Your task to perform on an android device: Go to sound settings Image 0: 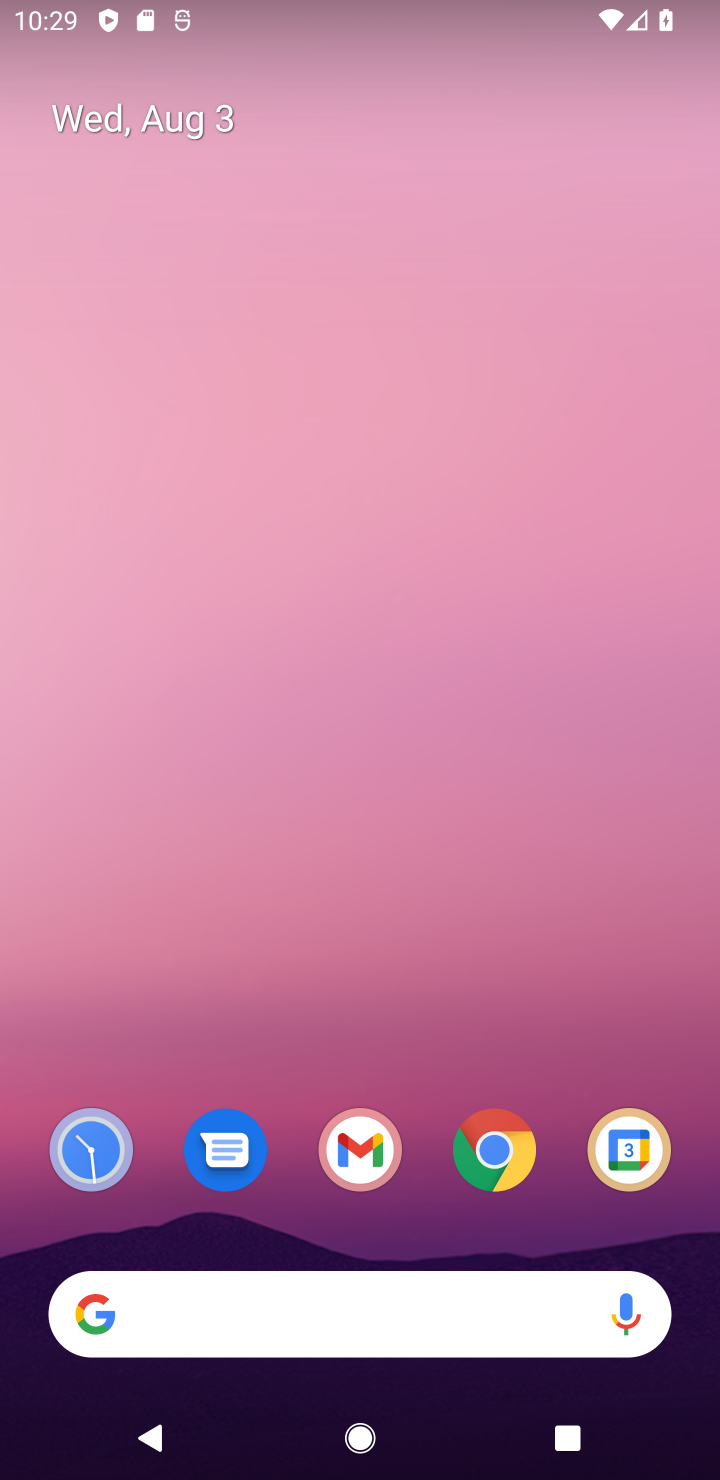
Step 0: drag from (553, 771) to (588, 175)
Your task to perform on an android device: Go to sound settings Image 1: 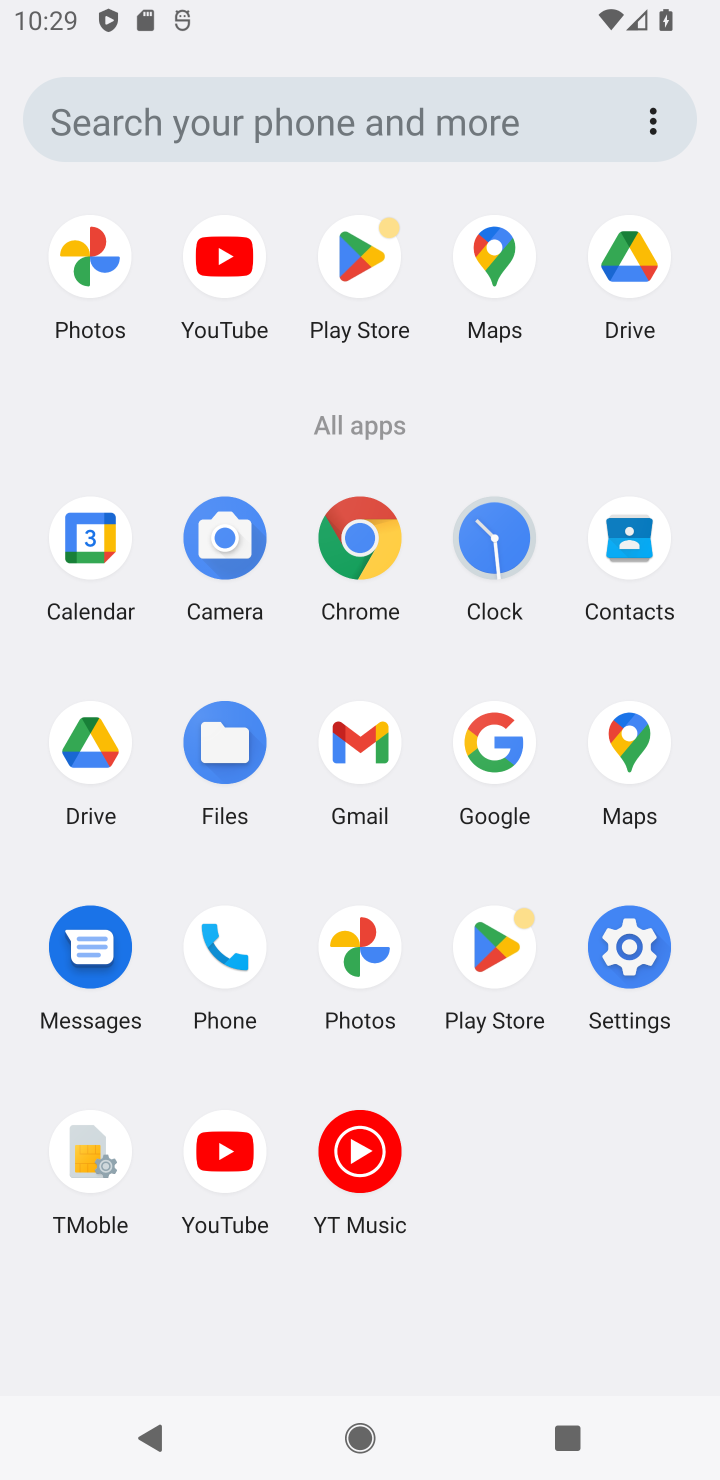
Step 1: click (634, 947)
Your task to perform on an android device: Go to sound settings Image 2: 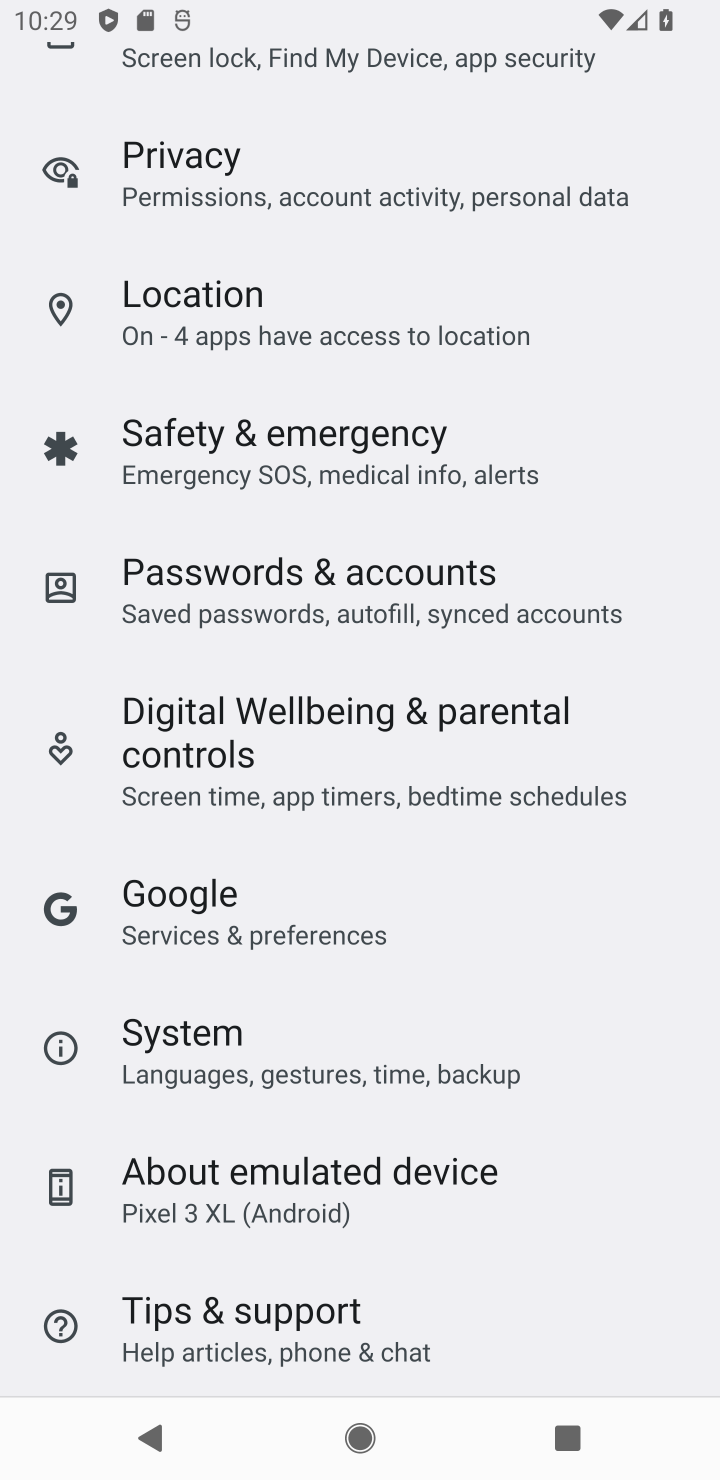
Step 2: drag from (649, 495) to (631, 819)
Your task to perform on an android device: Go to sound settings Image 3: 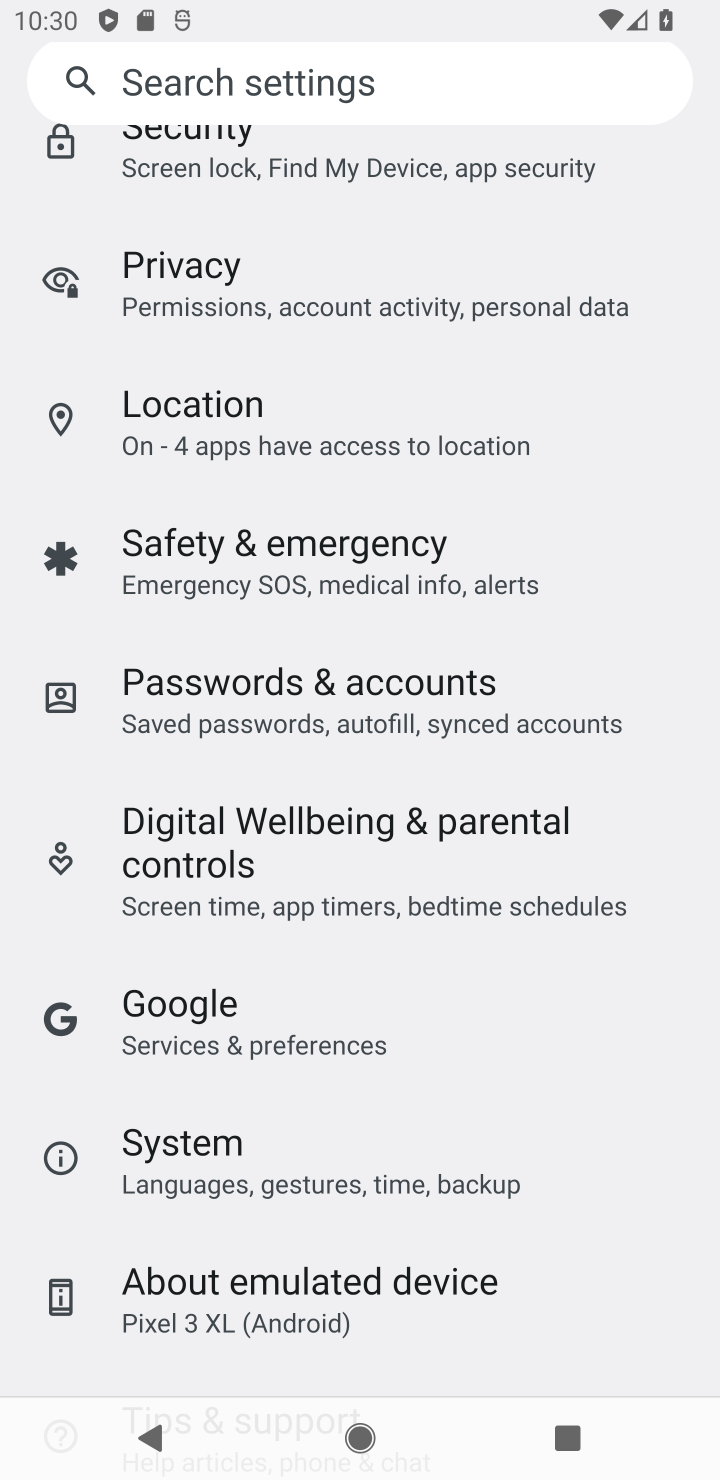
Step 3: drag from (668, 410) to (631, 786)
Your task to perform on an android device: Go to sound settings Image 4: 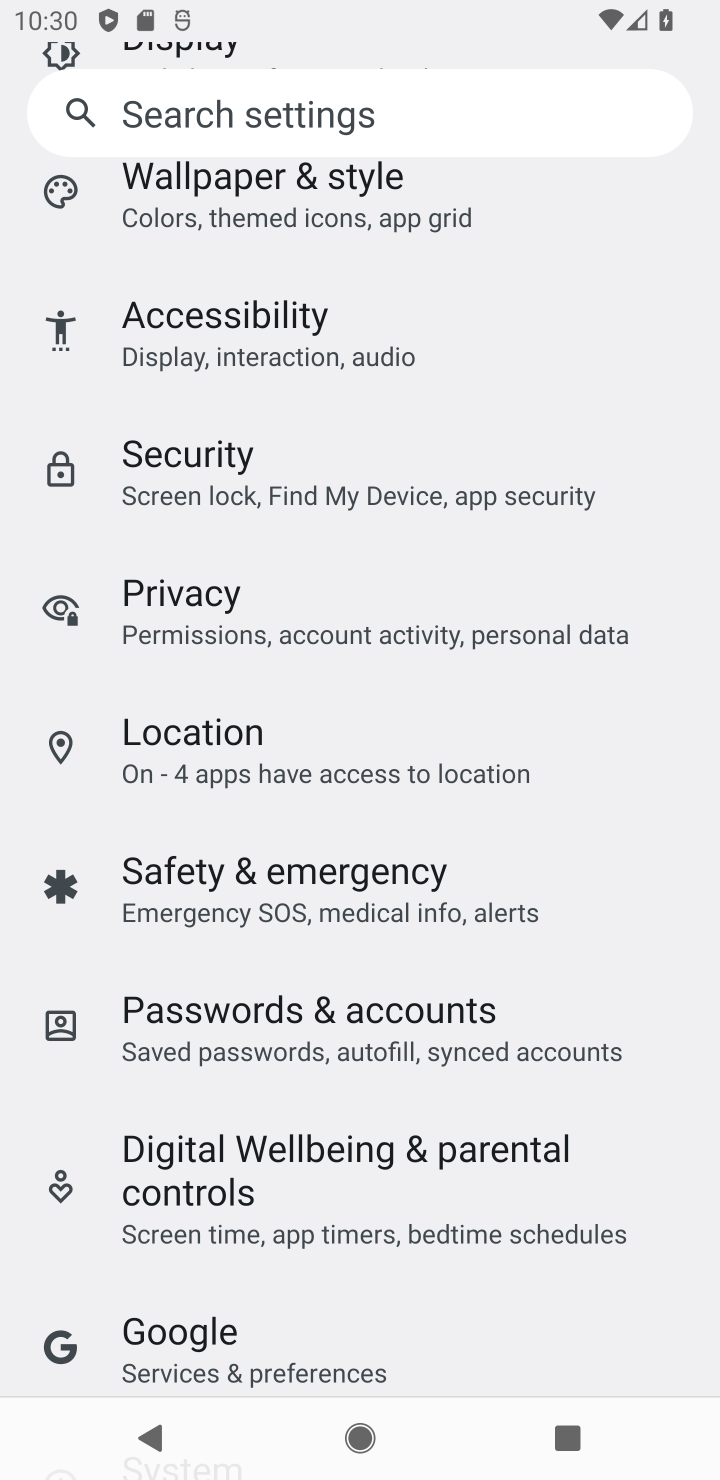
Step 4: drag from (667, 478) to (656, 888)
Your task to perform on an android device: Go to sound settings Image 5: 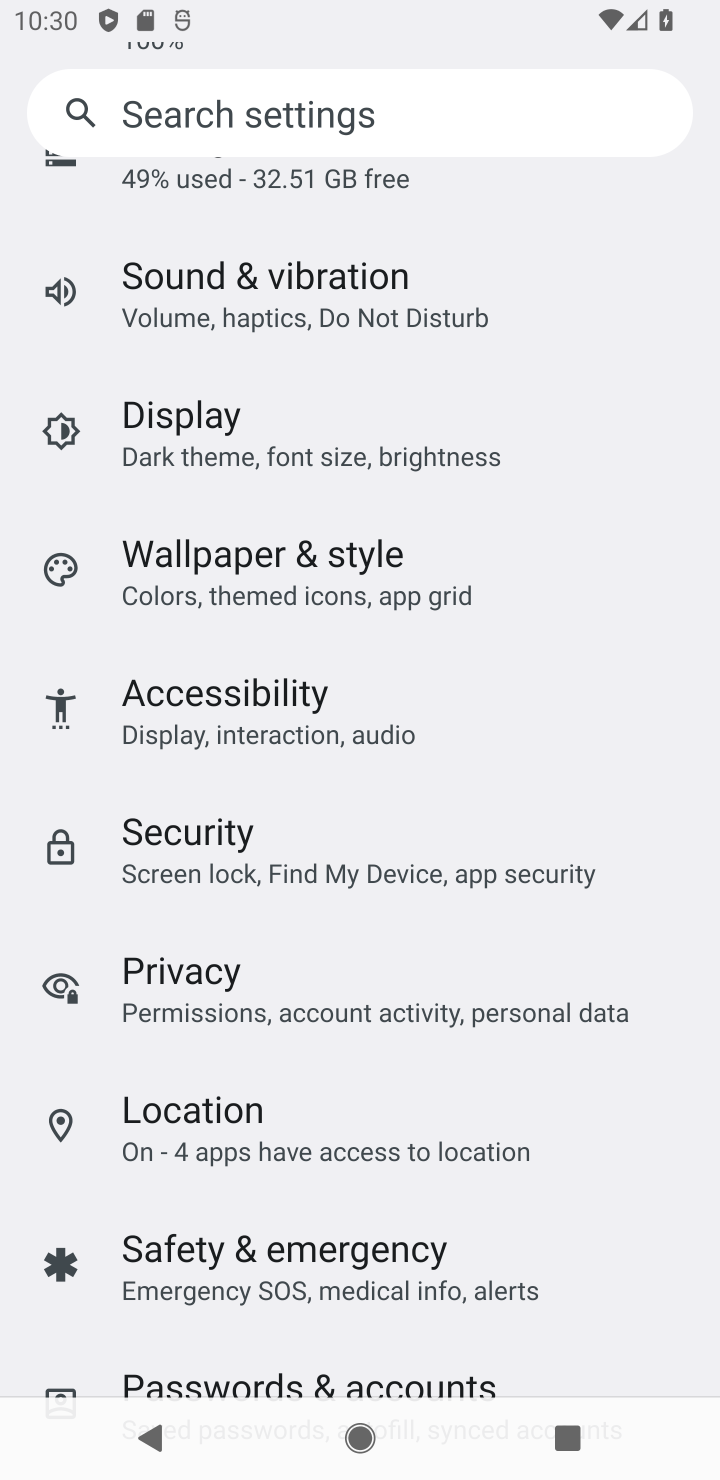
Step 5: drag from (602, 398) to (641, 758)
Your task to perform on an android device: Go to sound settings Image 6: 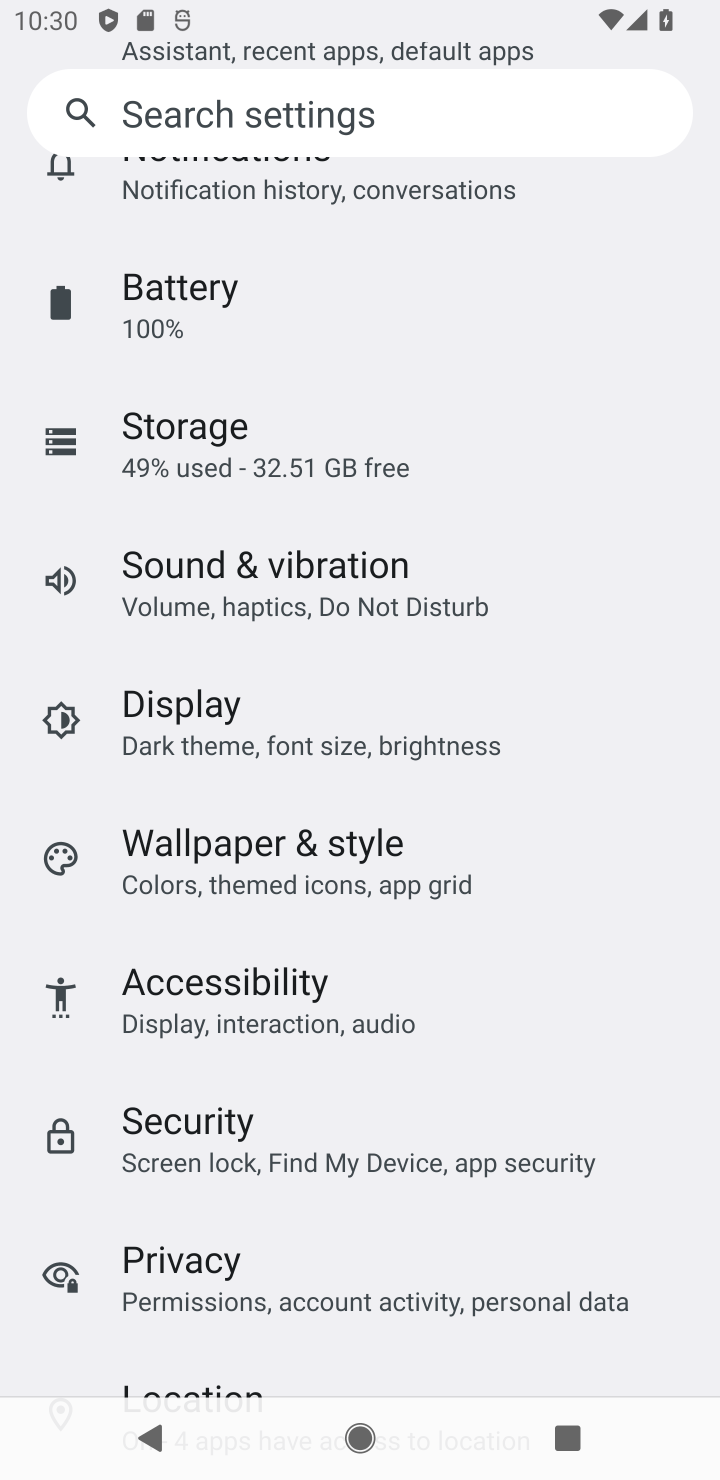
Step 6: drag from (575, 397) to (584, 737)
Your task to perform on an android device: Go to sound settings Image 7: 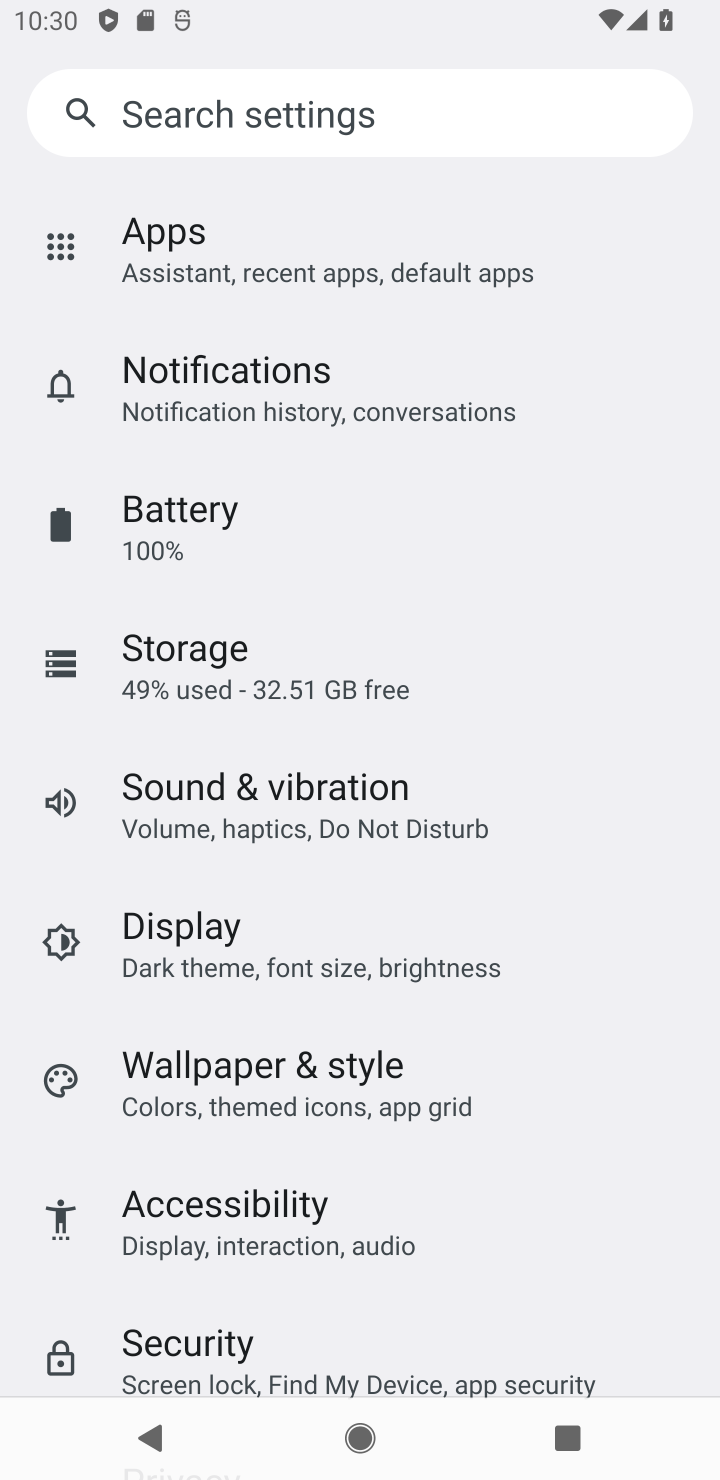
Step 7: click (434, 746)
Your task to perform on an android device: Go to sound settings Image 8: 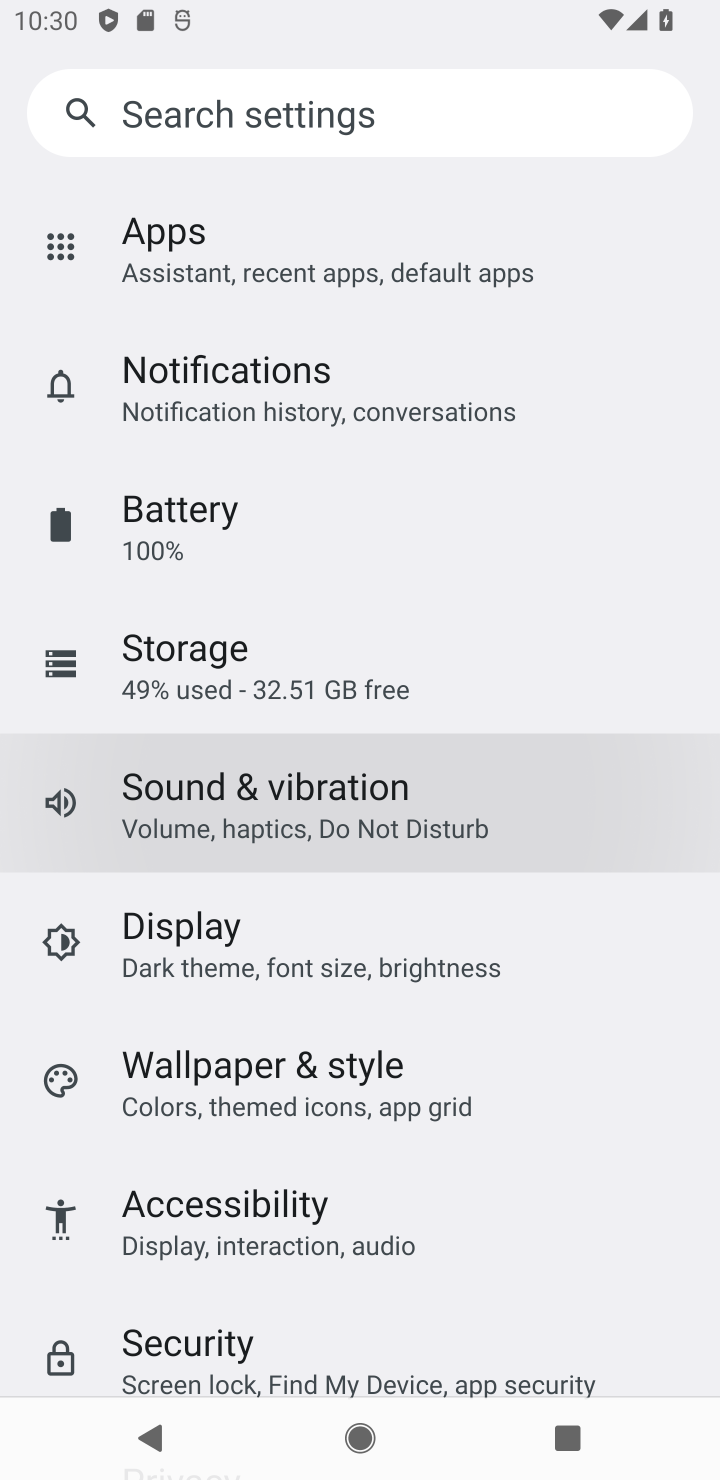
Step 8: click (436, 800)
Your task to perform on an android device: Go to sound settings Image 9: 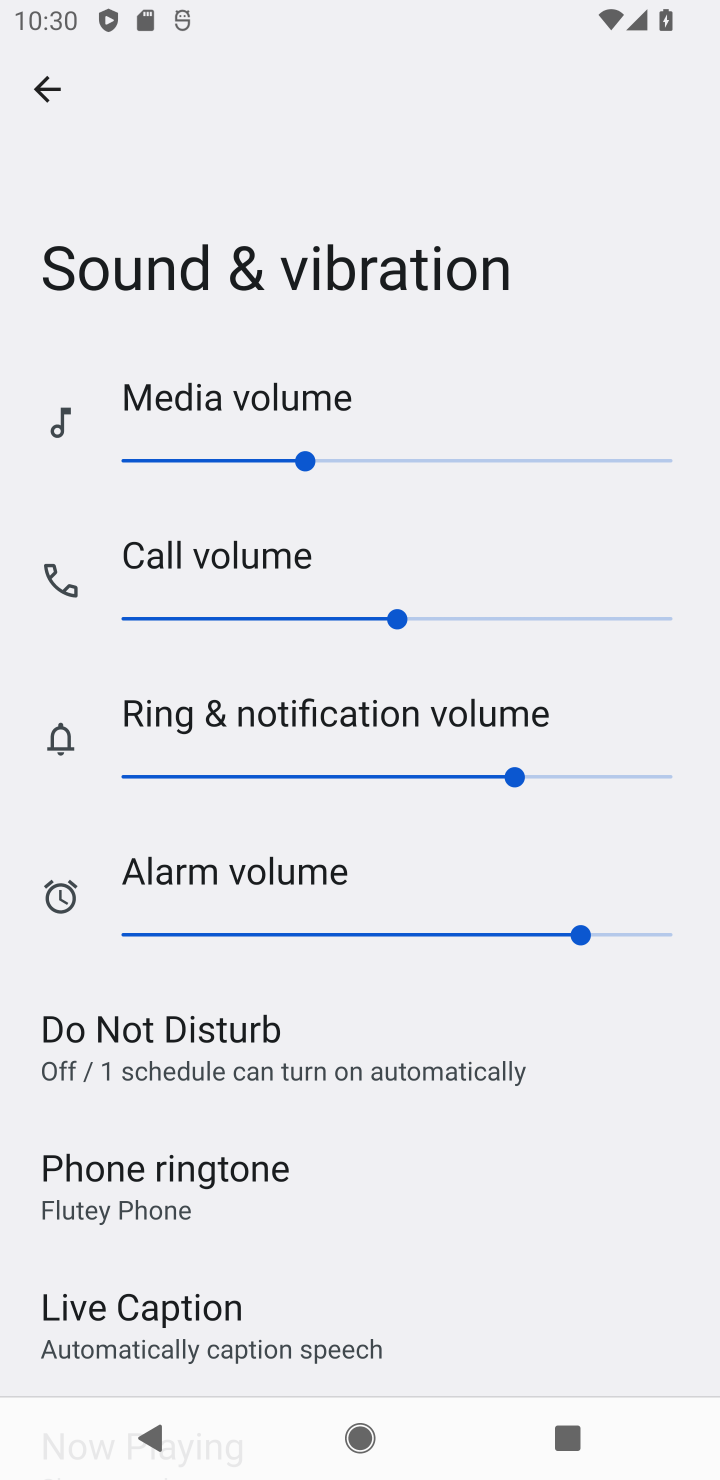
Step 9: task complete